Your task to perform on an android device: Open sound settings Image 0: 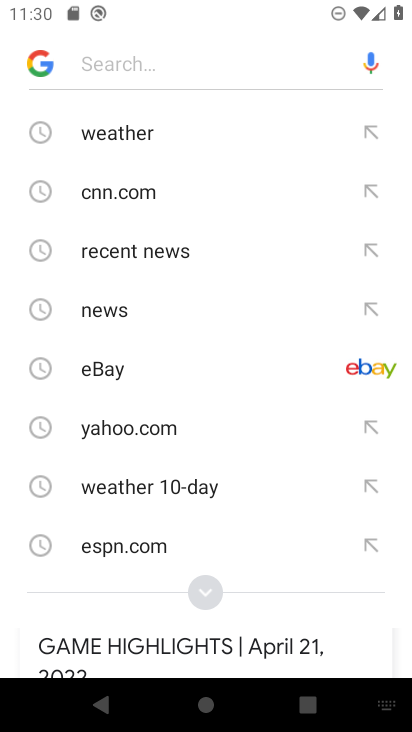
Step 0: press back button
Your task to perform on an android device: Open sound settings Image 1: 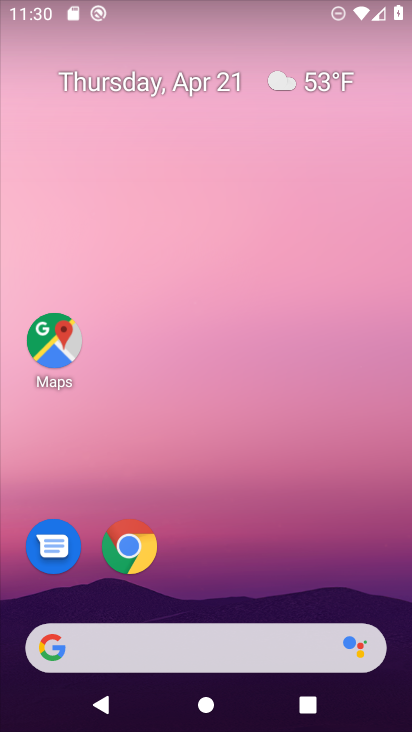
Step 1: drag from (195, 621) to (223, 240)
Your task to perform on an android device: Open sound settings Image 2: 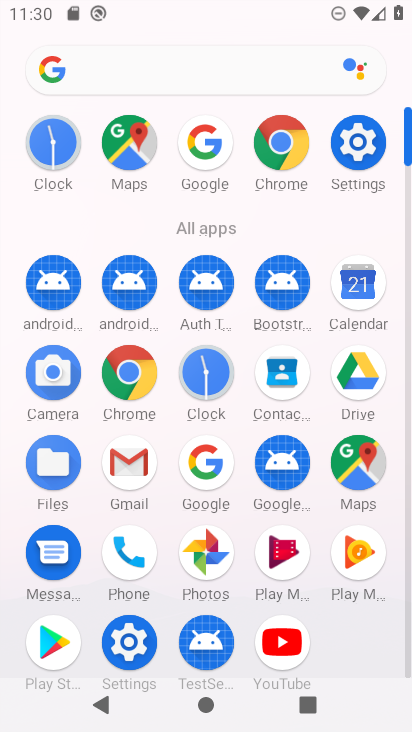
Step 2: click (354, 154)
Your task to perform on an android device: Open sound settings Image 3: 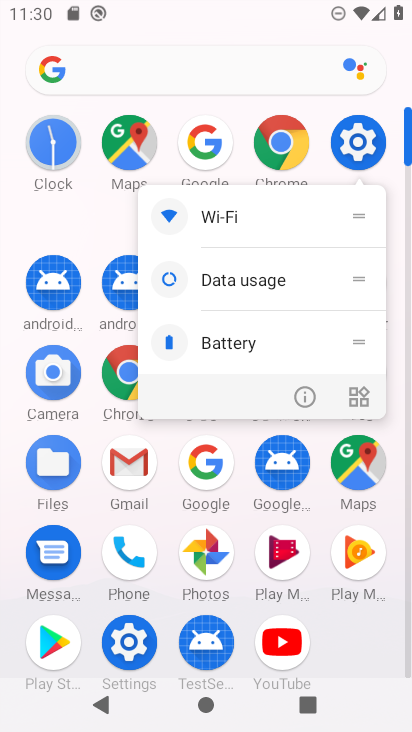
Step 3: click (360, 145)
Your task to perform on an android device: Open sound settings Image 4: 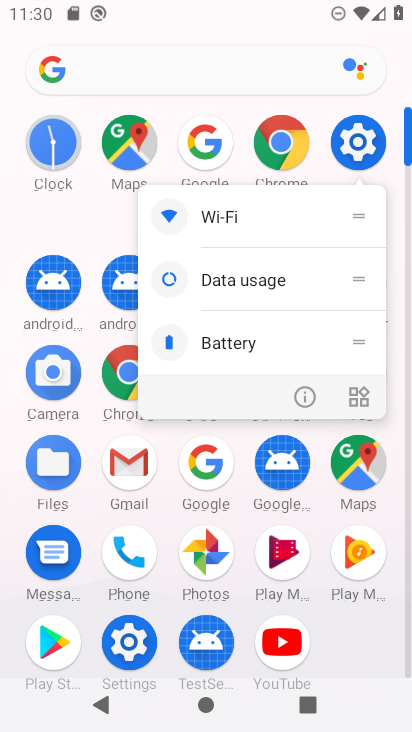
Step 4: click (361, 141)
Your task to perform on an android device: Open sound settings Image 5: 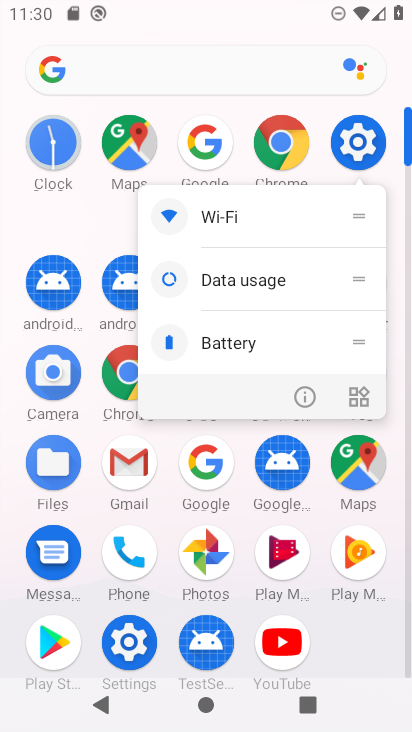
Step 5: click (366, 143)
Your task to perform on an android device: Open sound settings Image 6: 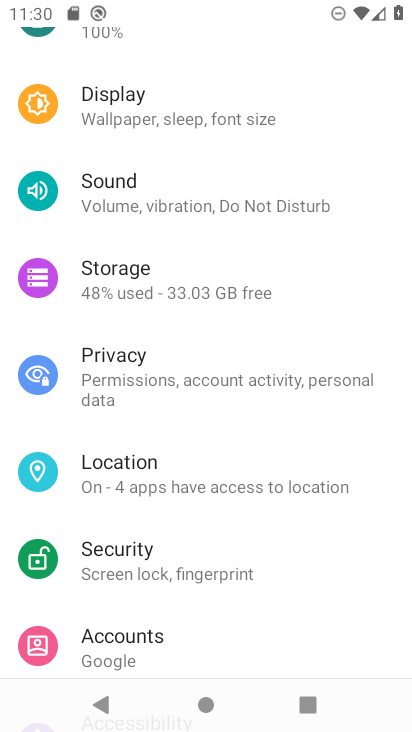
Step 6: click (106, 176)
Your task to perform on an android device: Open sound settings Image 7: 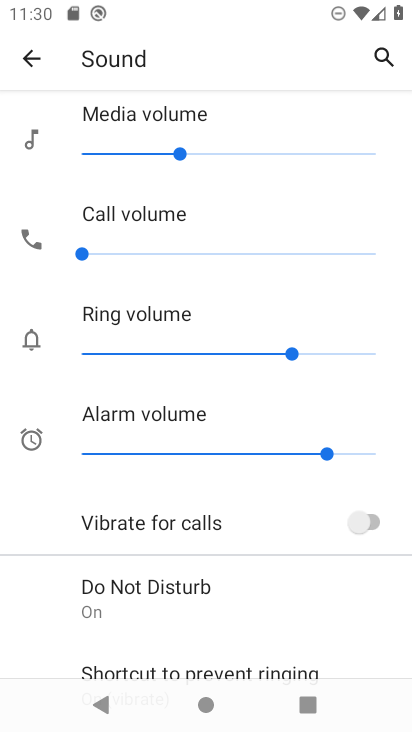
Step 7: drag from (194, 646) to (199, 277)
Your task to perform on an android device: Open sound settings Image 8: 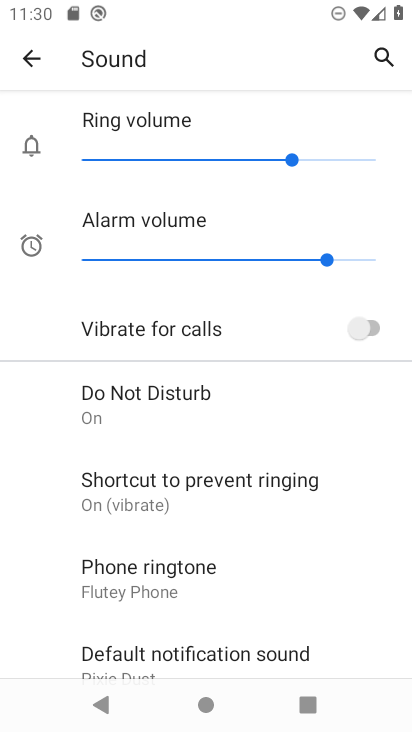
Step 8: drag from (177, 660) to (181, 356)
Your task to perform on an android device: Open sound settings Image 9: 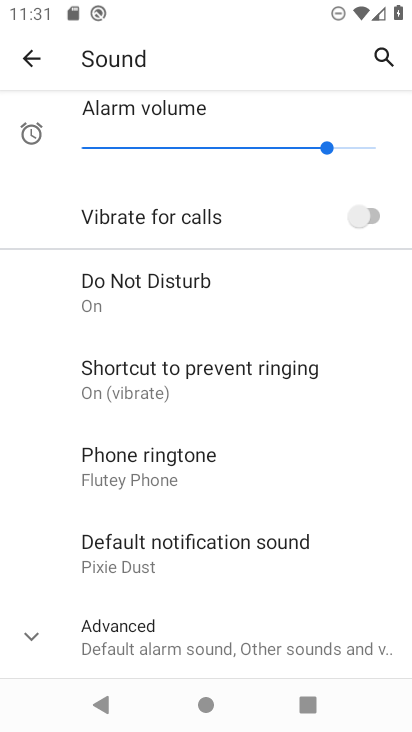
Step 9: click (109, 644)
Your task to perform on an android device: Open sound settings Image 10: 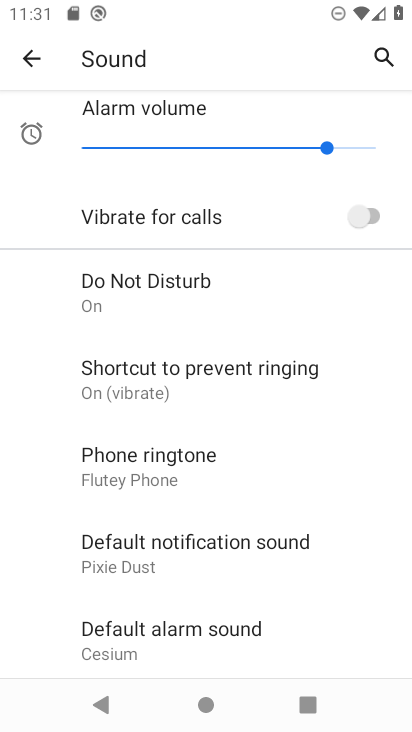
Step 10: task complete